Your task to perform on an android device: change the clock display to show seconds Image 0: 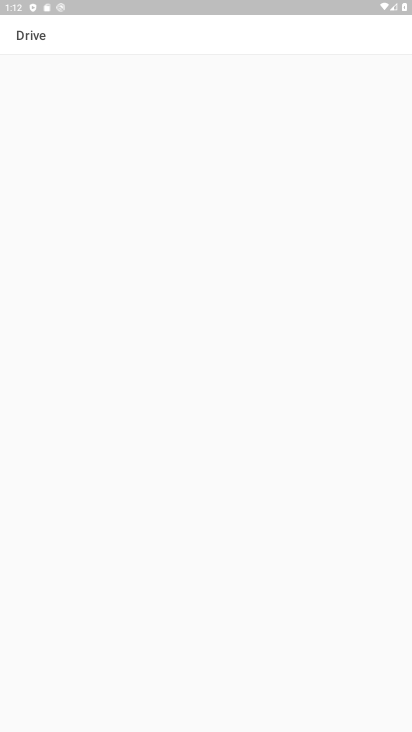
Step 0: press home button
Your task to perform on an android device: change the clock display to show seconds Image 1: 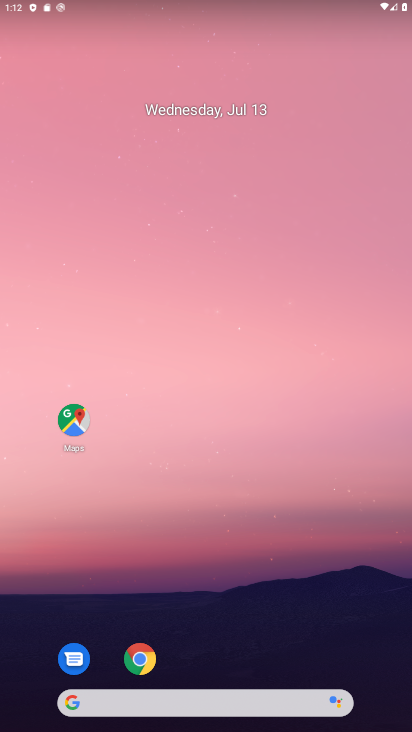
Step 1: drag from (365, 528) to (326, 31)
Your task to perform on an android device: change the clock display to show seconds Image 2: 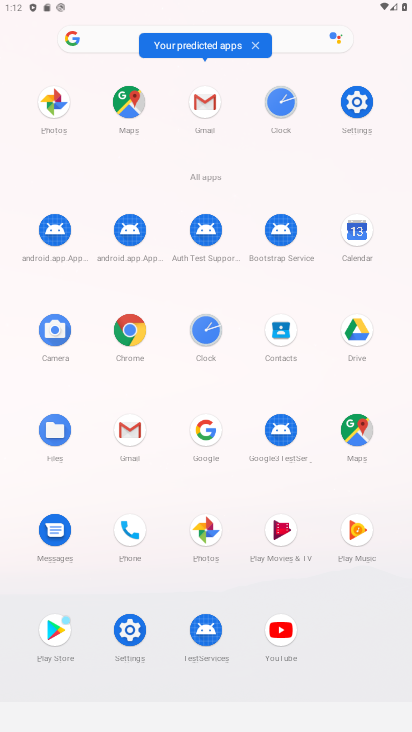
Step 2: click (209, 328)
Your task to perform on an android device: change the clock display to show seconds Image 3: 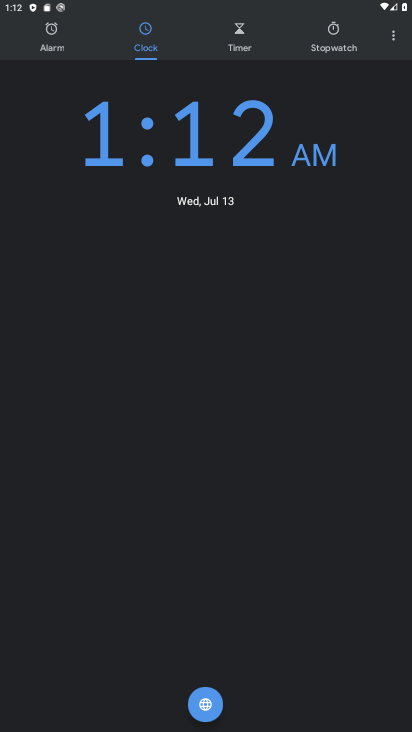
Step 3: click (393, 38)
Your task to perform on an android device: change the clock display to show seconds Image 4: 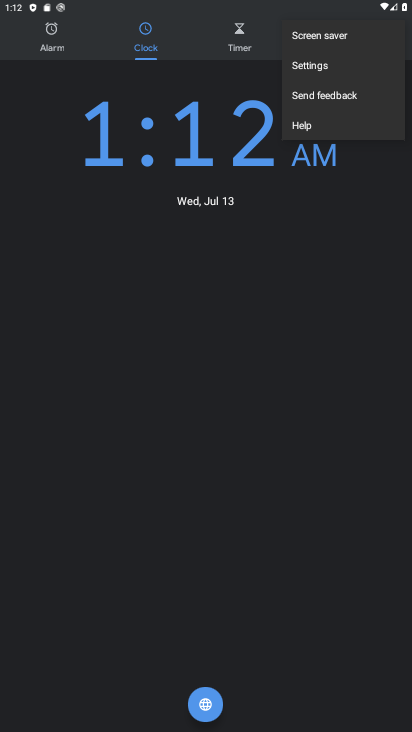
Step 4: click (314, 65)
Your task to perform on an android device: change the clock display to show seconds Image 5: 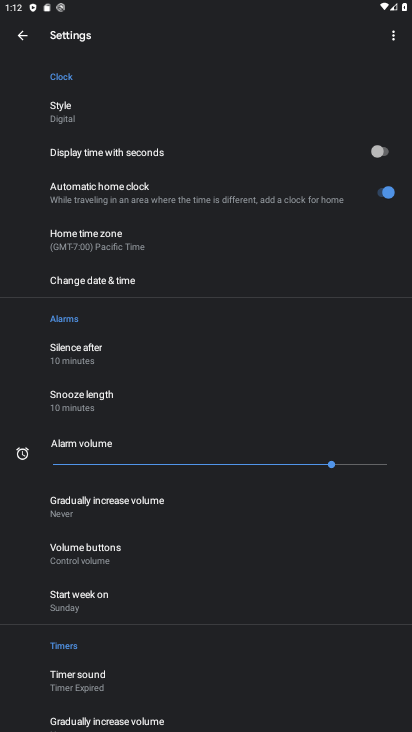
Step 5: click (382, 149)
Your task to perform on an android device: change the clock display to show seconds Image 6: 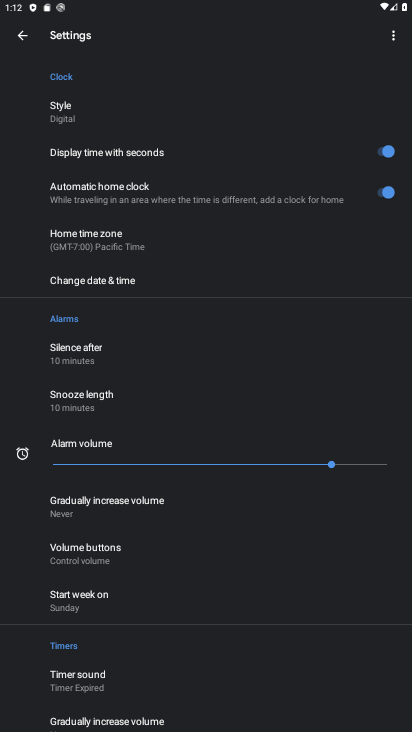
Step 6: task complete